Your task to perform on an android device: Add macbook pro to the cart on amazon Image 0: 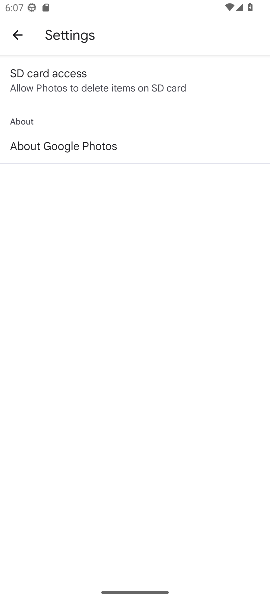
Step 0: press home button
Your task to perform on an android device: Add macbook pro to the cart on amazon Image 1: 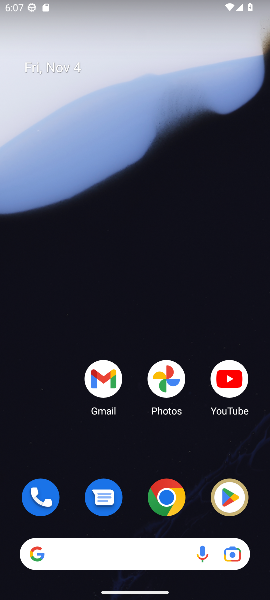
Step 1: click (172, 492)
Your task to perform on an android device: Add macbook pro to the cart on amazon Image 2: 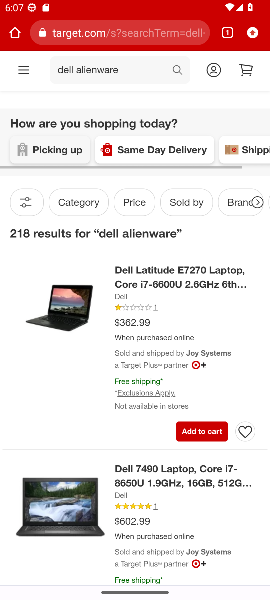
Step 2: click (97, 36)
Your task to perform on an android device: Add macbook pro to the cart on amazon Image 3: 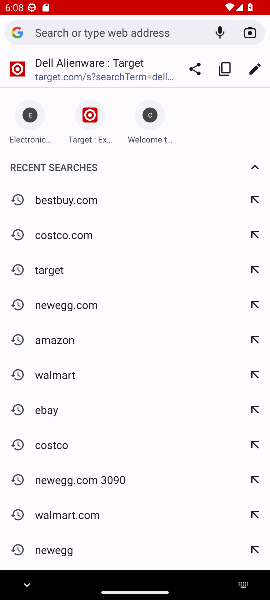
Step 3: click (54, 340)
Your task to perform on an android device: Add macbook pro to the cart on amazon Image 4: 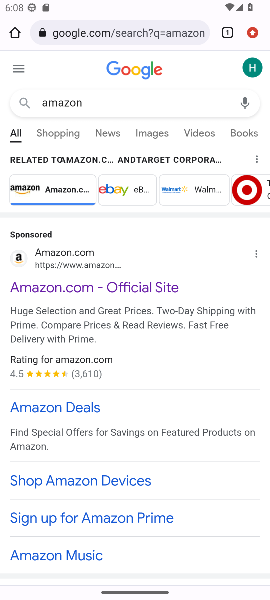
Step 4: drag from (57, 429) to (76, 218)
Your task to perform on an android device: Add macbook pro to the cart on amazon Image 5: 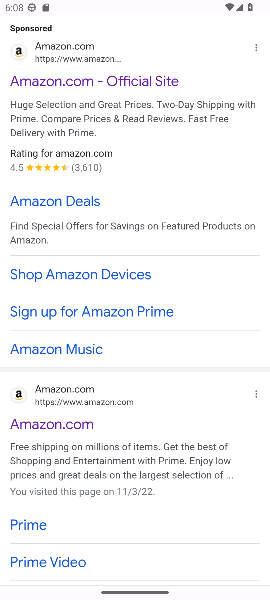
Step 5: click (38, 415)
Your task to perform on an android device: Add macbook pro to the cart on amazon Image 6: 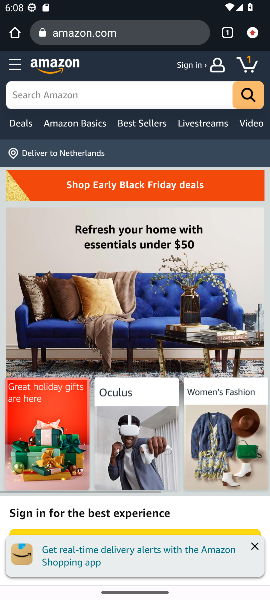
Step 6: click (121, 103)
Your task to perform on an android device: Add macbook pro to the cart on amazon Image 7: 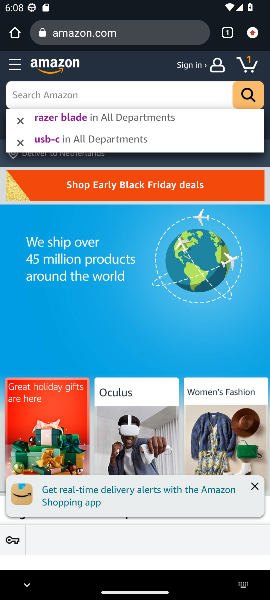
Step 7: type "macbook pro"
Your task to perform on an android device: Add macbook pro to the cart on amazon Image 8: 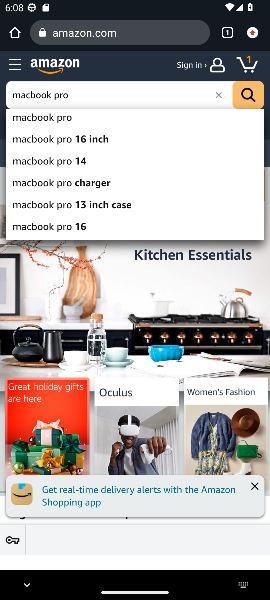
Step 8: click (43, 122)
Your task to perform on an android device: Add macbook pro to the cart on amazon Image 9: 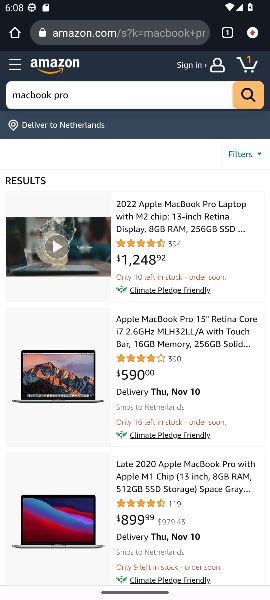
Step 9: click (147, 240)
Your task to perform on an android device: Add macbook pro to the cart on amazon Image 10: 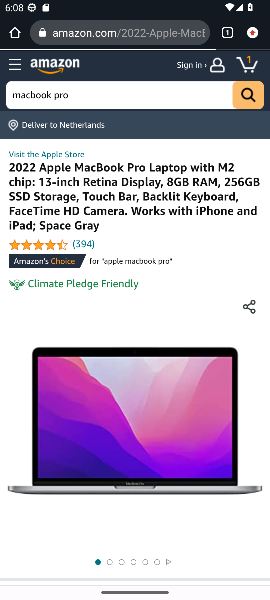
Step 10: drag from (126, 410) to (125, 186)
Your task to perform on an android device: Add macbook pro to the cart on amazon Image 11: 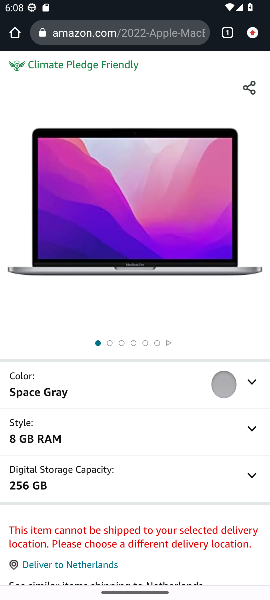
Step 11: drag from (84, 411) to (91, 234)
Your task to perform on an android device: Add macbook pro to the cart on amazon Image 12: 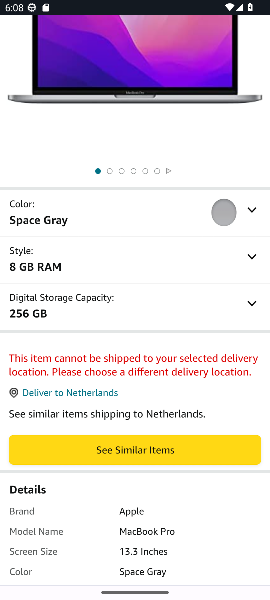
Step 12: drag from (91, 234) to (46, 547)
Your task to perform on an android device: Add macbook pro to the cart on amazon Image 13: 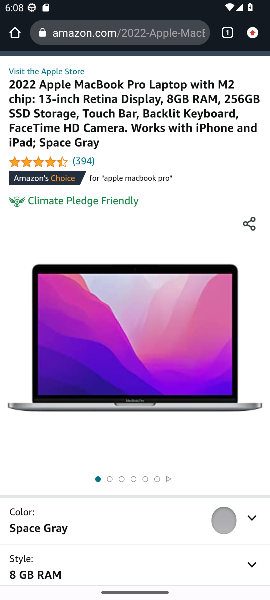
Step 13: drag from (110, 182) to (89, 402)
Your task to perform on an android device: Add macbook pro to the cart on amazon Image 14: 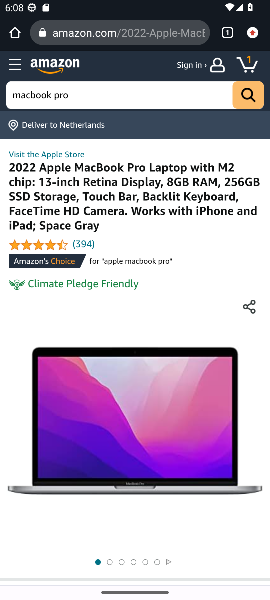
Step 14: press back button
Your task to perform on an android device: Add macbook pro to the cart on amazon Image 15: 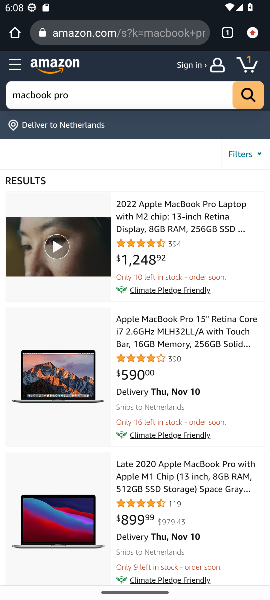
Step 15: drag from (92, 395) to (116, 208)
Your task to perform on an android device: Add macbook pro to the cart on amazon Image 16: 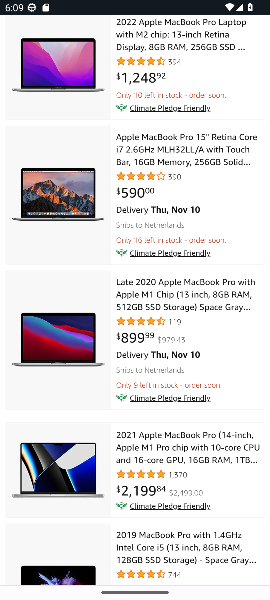
Step 16: click (139, 170)
Your task to perform on an android device: Add macbook pro to the cart on amazon Image 17: 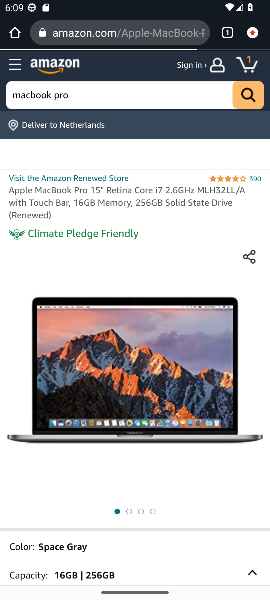
Step 17: drag from (135, 444) to (181, 165)
Your task to perform on an android device: Add macbook pro to the cart on amazon Image 18: 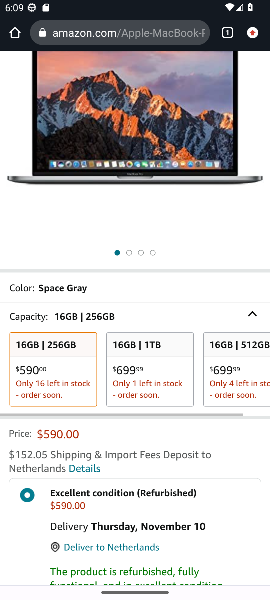
Step 18: drag from (122, 448) to (159, 243)
Your task to perform on an android device: Add macbook pro to the cart on amazon Image 19: 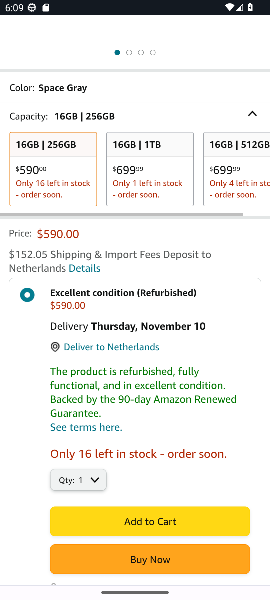
Step 19: click (135, 517)
Your task to perform on an android device: Add macbook pro to the cart on amazon Image 20: 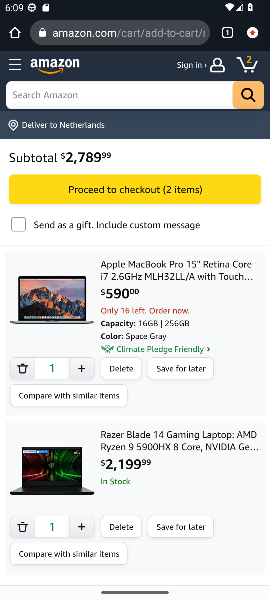
Step 20: task complete